Your task to perform on an android device: turn on wifi Image 0: 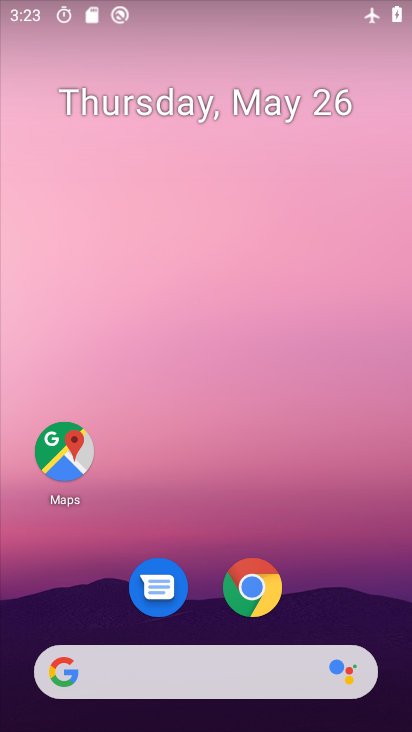
Step 0: drag from (279, 514) to (155, 18)
Your task to perform on an android device: turn on wifi Image 1: 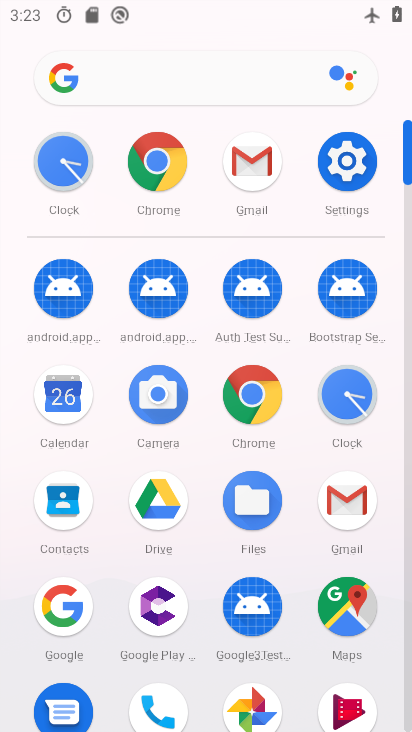
Step 1: click (349, 146)
Your task to perform on an android device: turn on wifi Image 2: 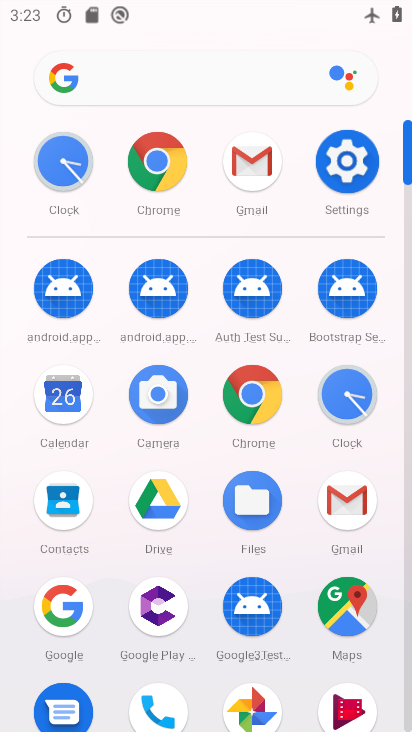
Step 2: click (349, 155)
Your task to perform on an android device: turn on wifi Image 3: 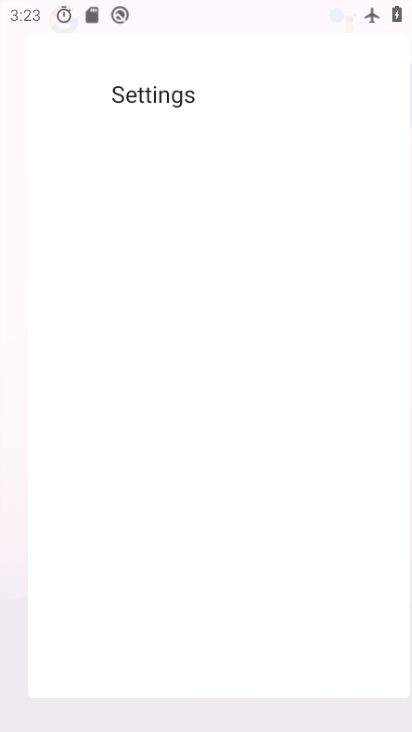
Step 3: click (355, 191)
Your task to perform on an android device: turn on wifi Image 4: 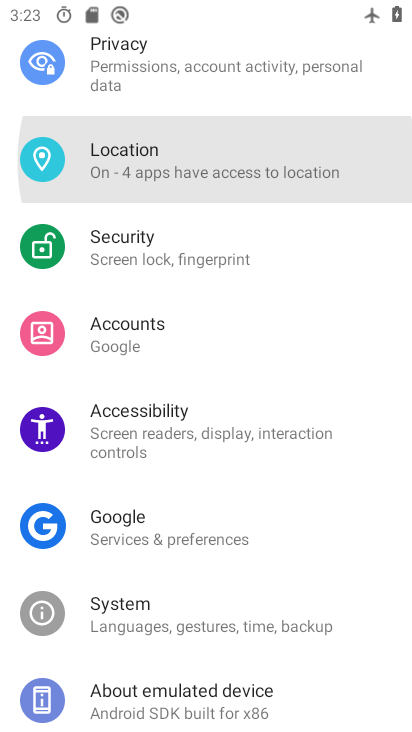
Step 4: click (341, 152)
Your task to perform on an android device: turn on wifi Image 5: 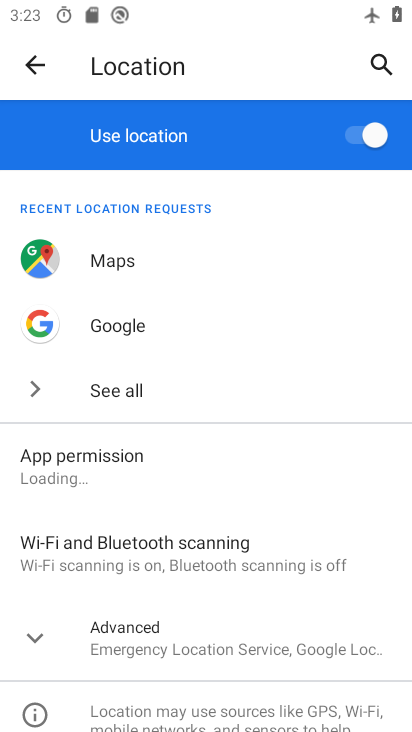
Step 5: click (26, 65)
Your task to perform on an android device: turn on wifi Image 6: 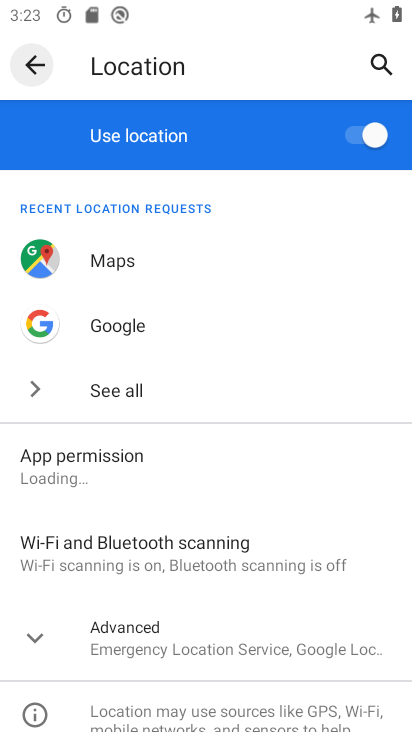
Step 6: click (30, 62)
Your task to perform on an android device: turn on wifi Image 7: 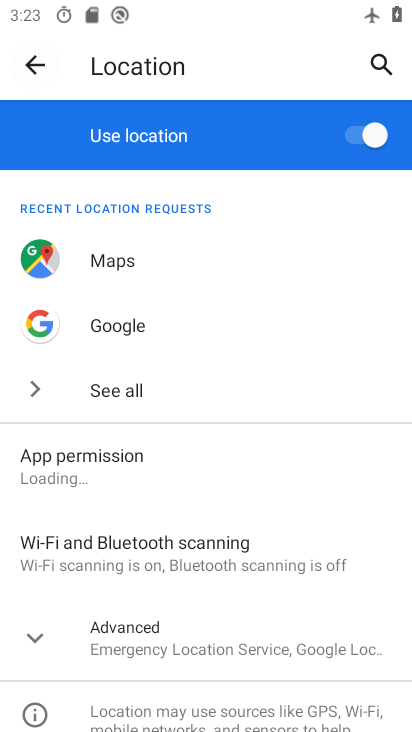
Step 7: click (32, 62)
Your task to perform on an android device: turn on wifi Image 8: 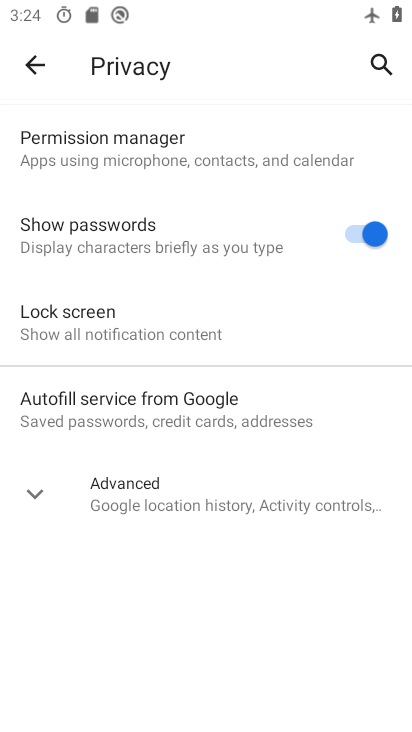
Step 8: click (35, 67)
Your task to perform on an android device: turn on wifi Image 9: 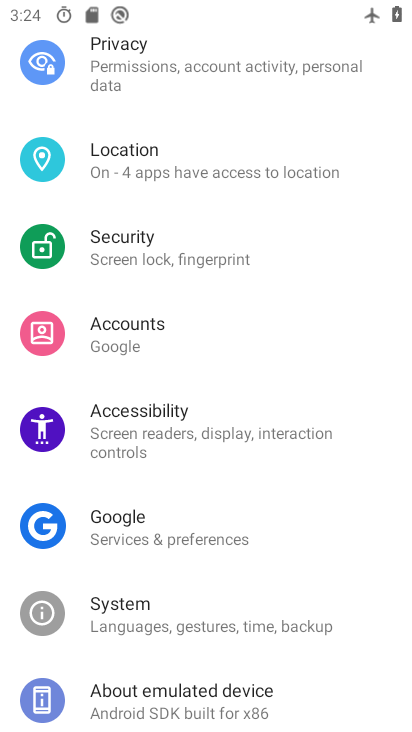
Step 9: drag from (198, 242) to (289, 590)
Your task to perform on an android device: turn on wifi Image 10: 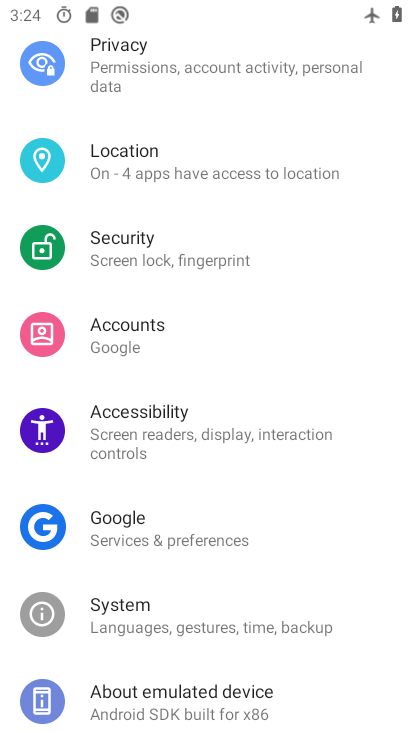
Step 10: drag from (232, 204) to (217, 690)
Your task to perform on an android device: turn on wifi Image 11: 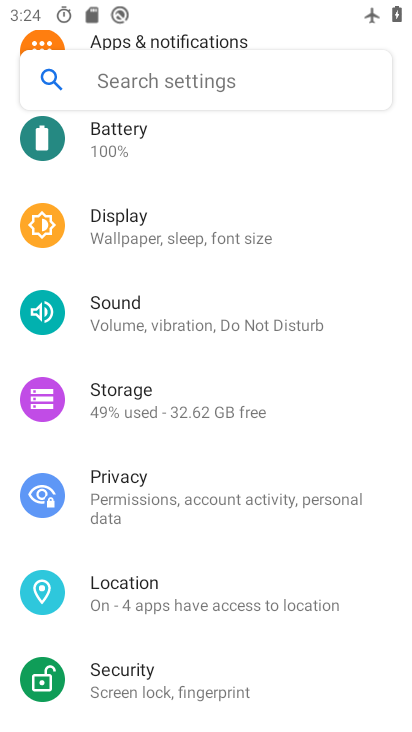
Step 11: drag from (175, 283) to (201, 649)
Your task to perform on an android device: turn on wifi Image 12: 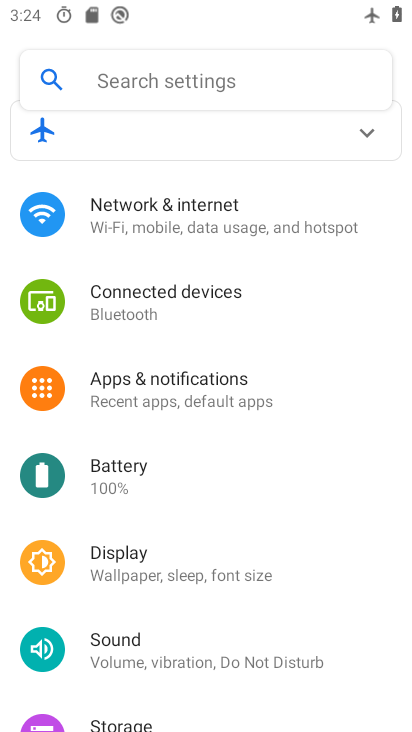
Step 12: drag from (171, 175) to (211, 699)
Your task to perform on an android device: turn on wifi Image 13: 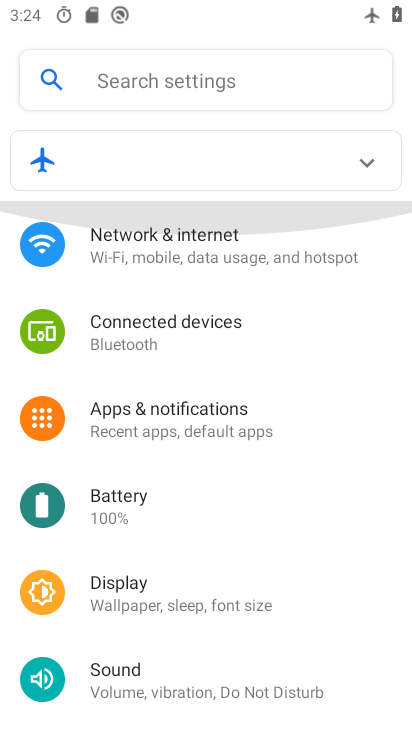
Step 13: drag from (178, 346) to (178, 578)
Your task to perform on an android device: turn on wifi Image 14: 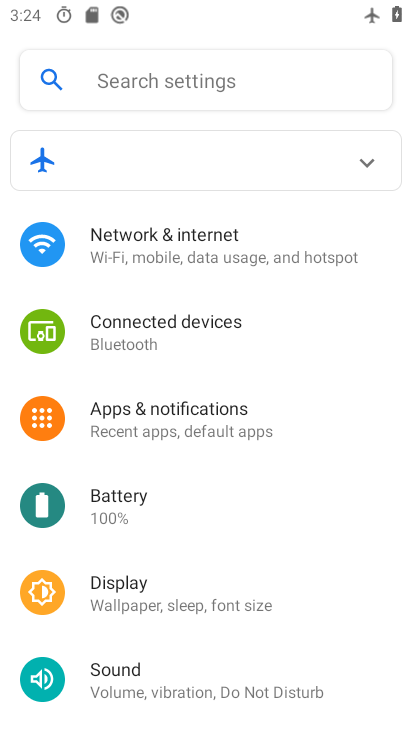
Step 14: click (136, 248)
Your task to perform on an android device: turn on wifi Image 15: 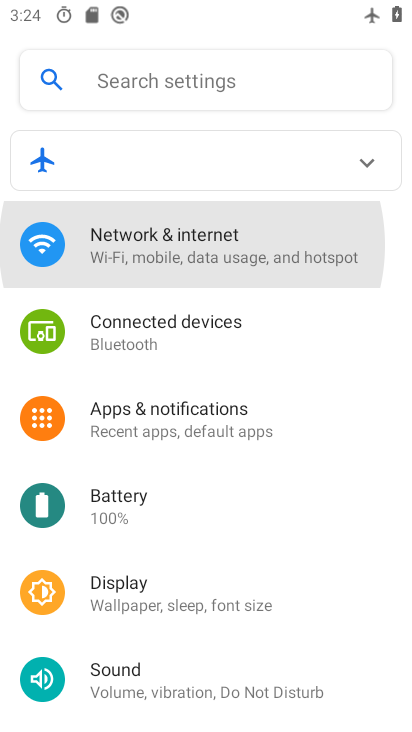
Step 15: click (137, 243)
Your task to perform on an android device: turn on wifi Image 16: 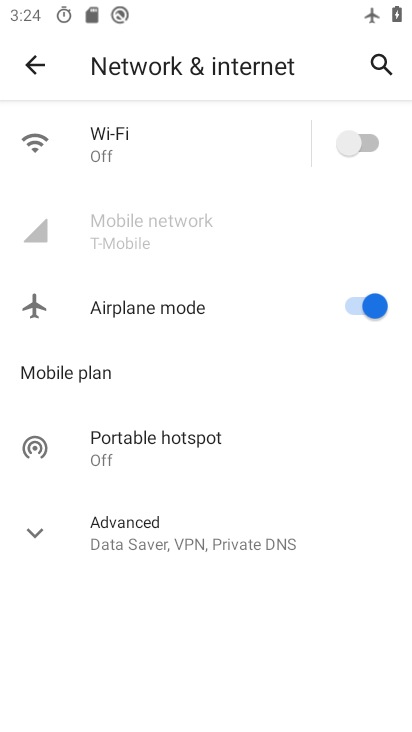
Step 16: click (351, 144)
Your task to perform on an android device: turn on wifi Image 17: 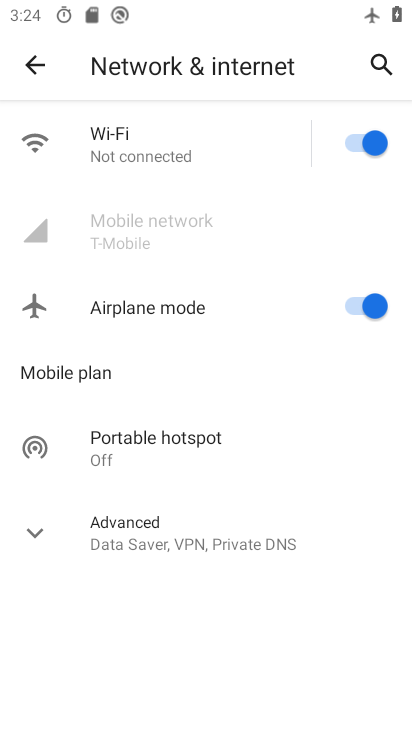
Step 17: task complete